Your task to perform on an android device: What's on my calendar today? Image 0: 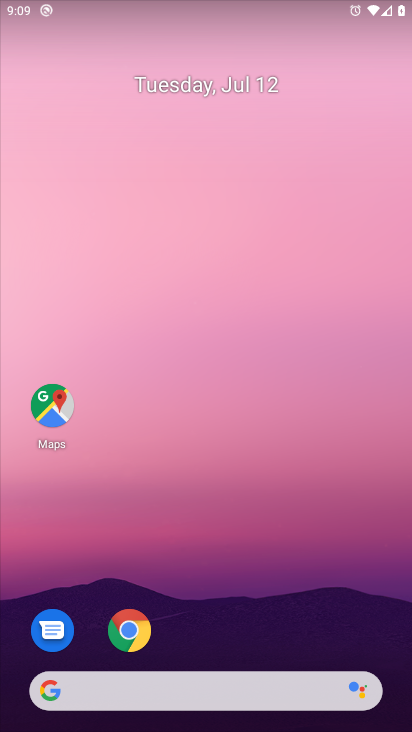
Step 0: drag from (231, 530) to (231, 216)
Your task to perform on an android device: What's on my calendar today? Image 1: 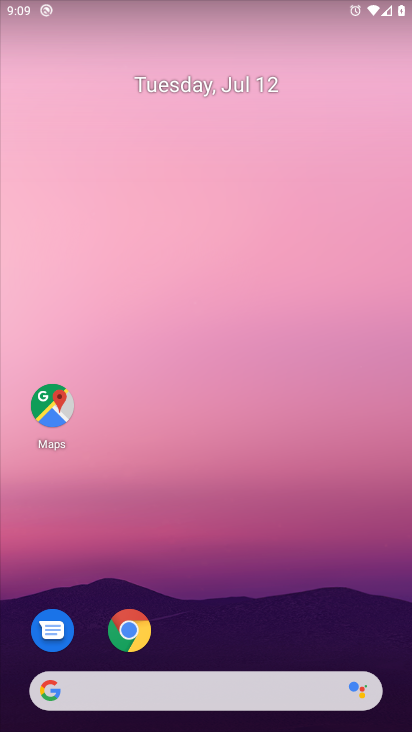
Step 1: drag from (293, 645) to (323, 117)
Your task to perform on an android device: What's on my calendar today? Image 2: 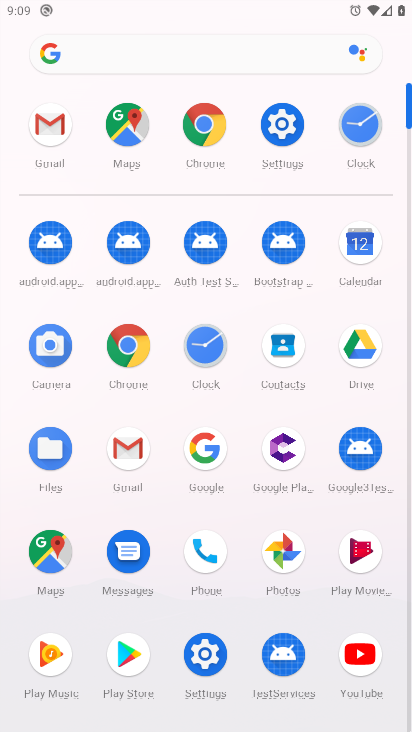
Step 2: click (359, 245)
Your task to perform on an android device: What's on my calendar today? Image 3: 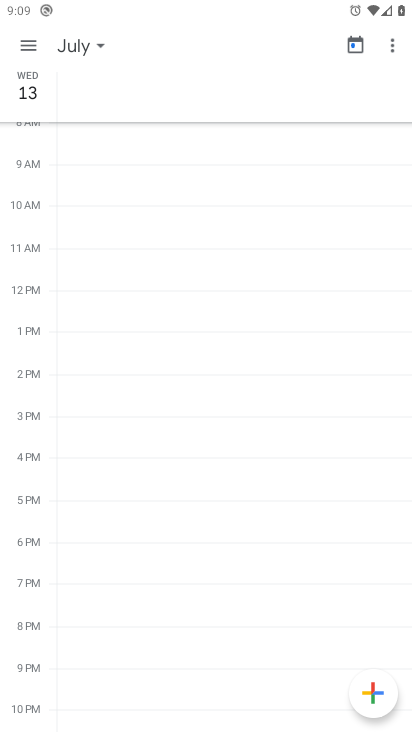
Step 3: click (96, 47)
Your task to perform on an android device: What's on my calendar today? Image 4: 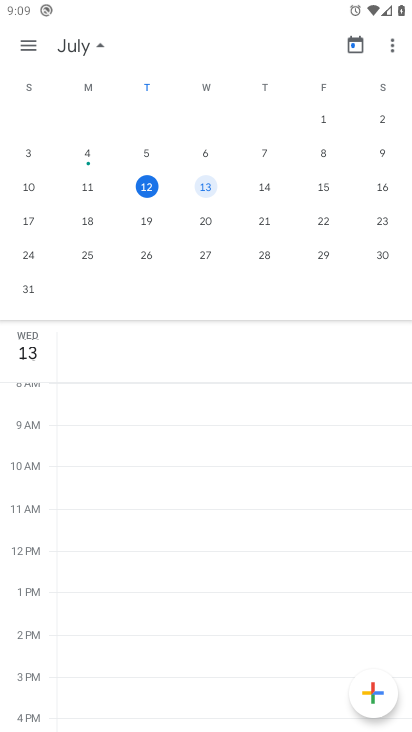
Step 4: click (203, 183)
Your task to perform on an android device: What's on my calendar today? Image 5: 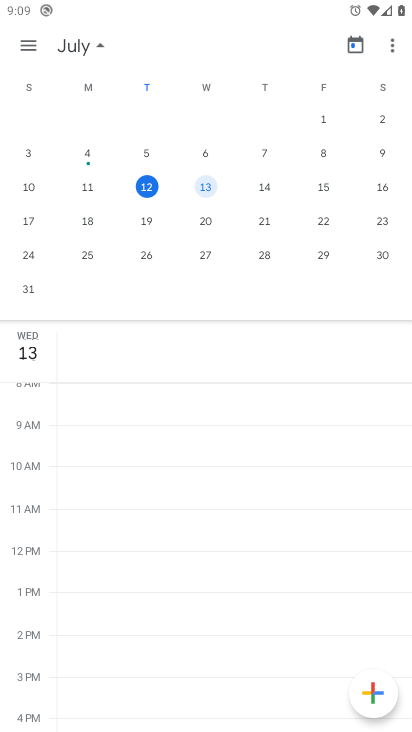
Step 5: click (203, 184)
Your task to perform on an android device: What's on my calendar today? Image 6: 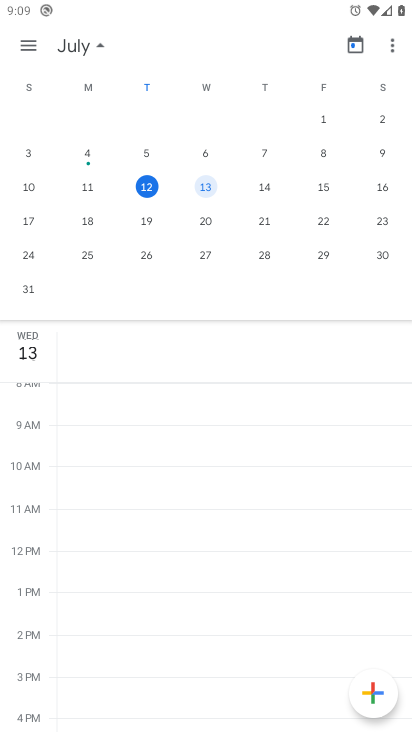
Step 6: click (203, 184)
Your task to perform on an android device: What's on my calendar today? Image 7: 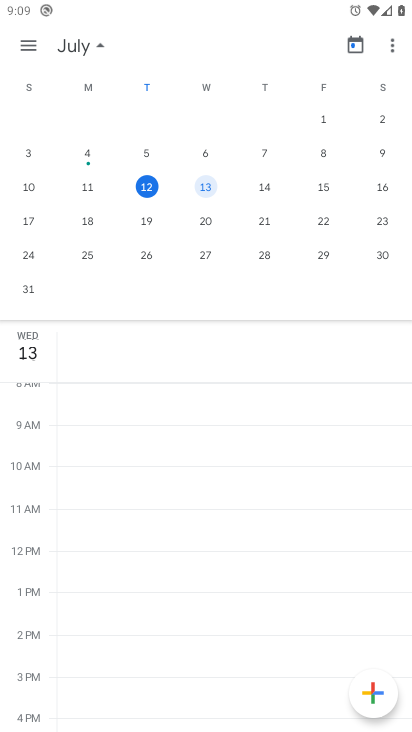
Step 7: click (209, 186)
Your task to perform on an android device: What's on my calendar today? Image 8: 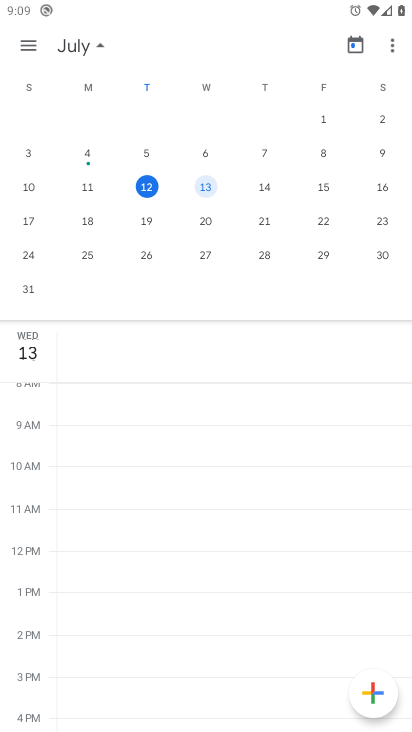
Step 8: click (209, 186)
Your task to perform on an android device: What's on my calendar today? Image 9: 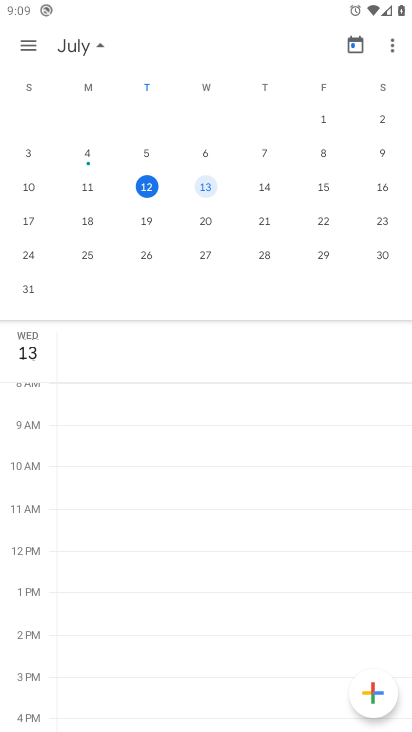
Step 9: click (150, 191)
Your task to perform on an android device: What's on my calendar today? Image 10: 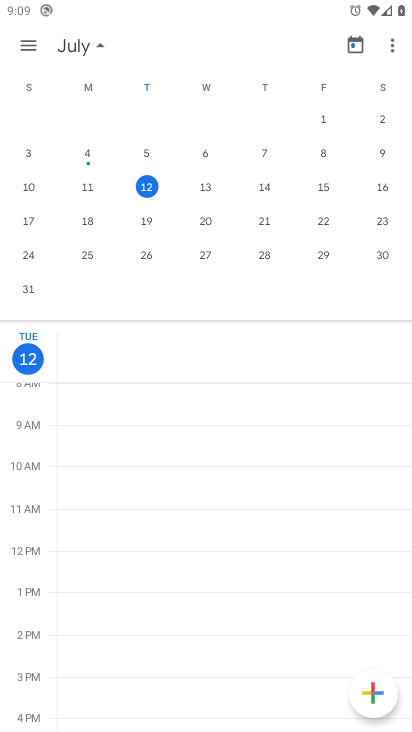
Step 10: click (215, 185)
Your task to perform on an android device: What's on my calendar today? Image 11: 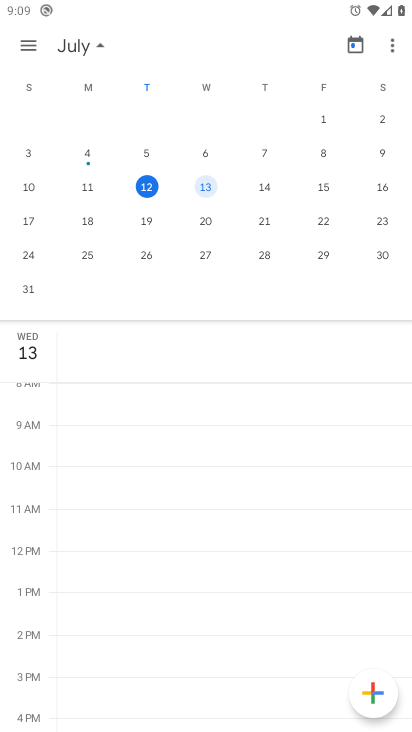
Step 11: click (215, 185)
Your task to perform on an android device: What's on my calendar today? Image 12: 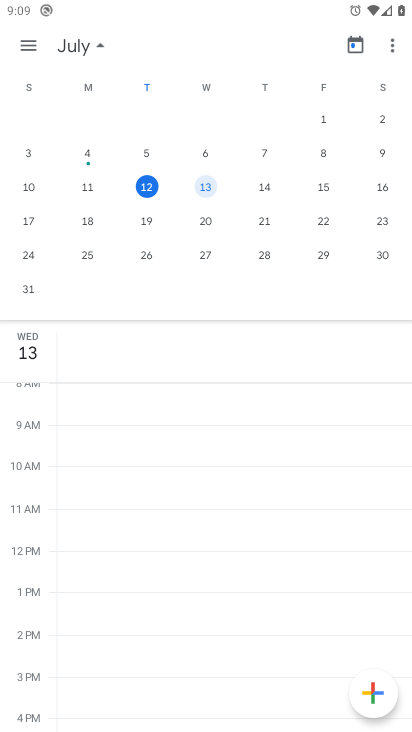
Step 12: task complete